Your task to perform on an android device: How much does a 2 bedroom apartment rent for in Los Angeles? Image 0: 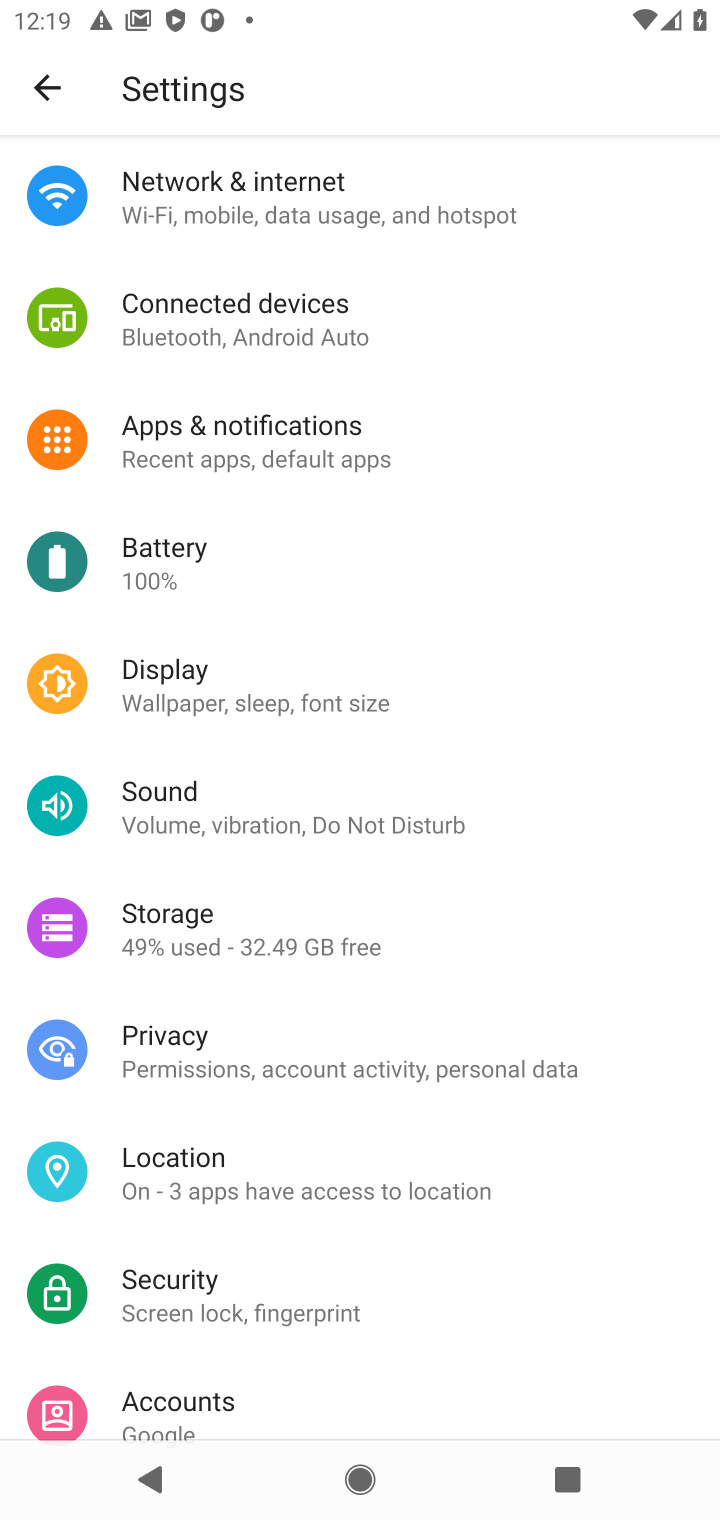
Step 0: press home button
Your task to perform on an android device: How much does a 2 bedroom apartment rent for in Los Angeles? Image 1: 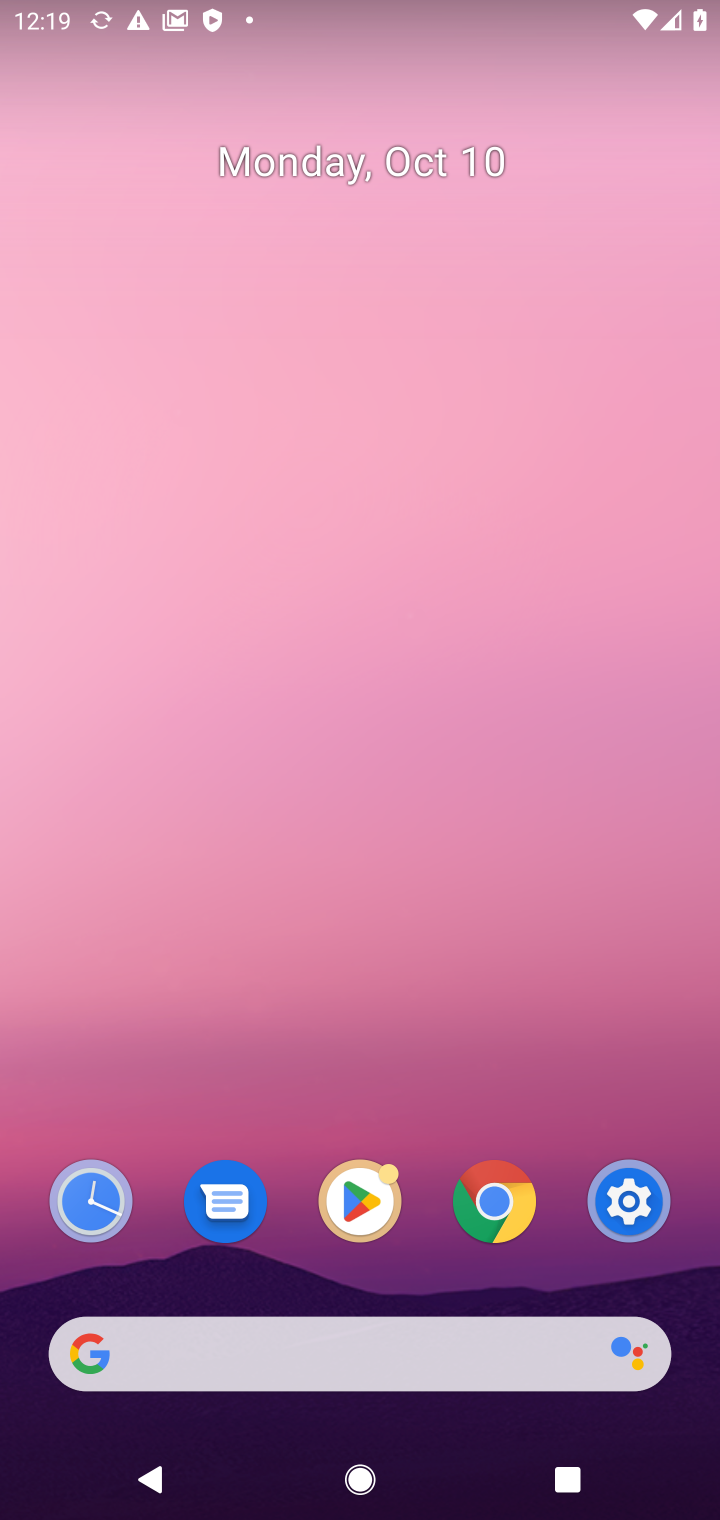
Step 1: click (501, 1205)
Your task to perform on an android device: How much does a 2 bedroom apartment rent for in Los Angeles? Image 2: 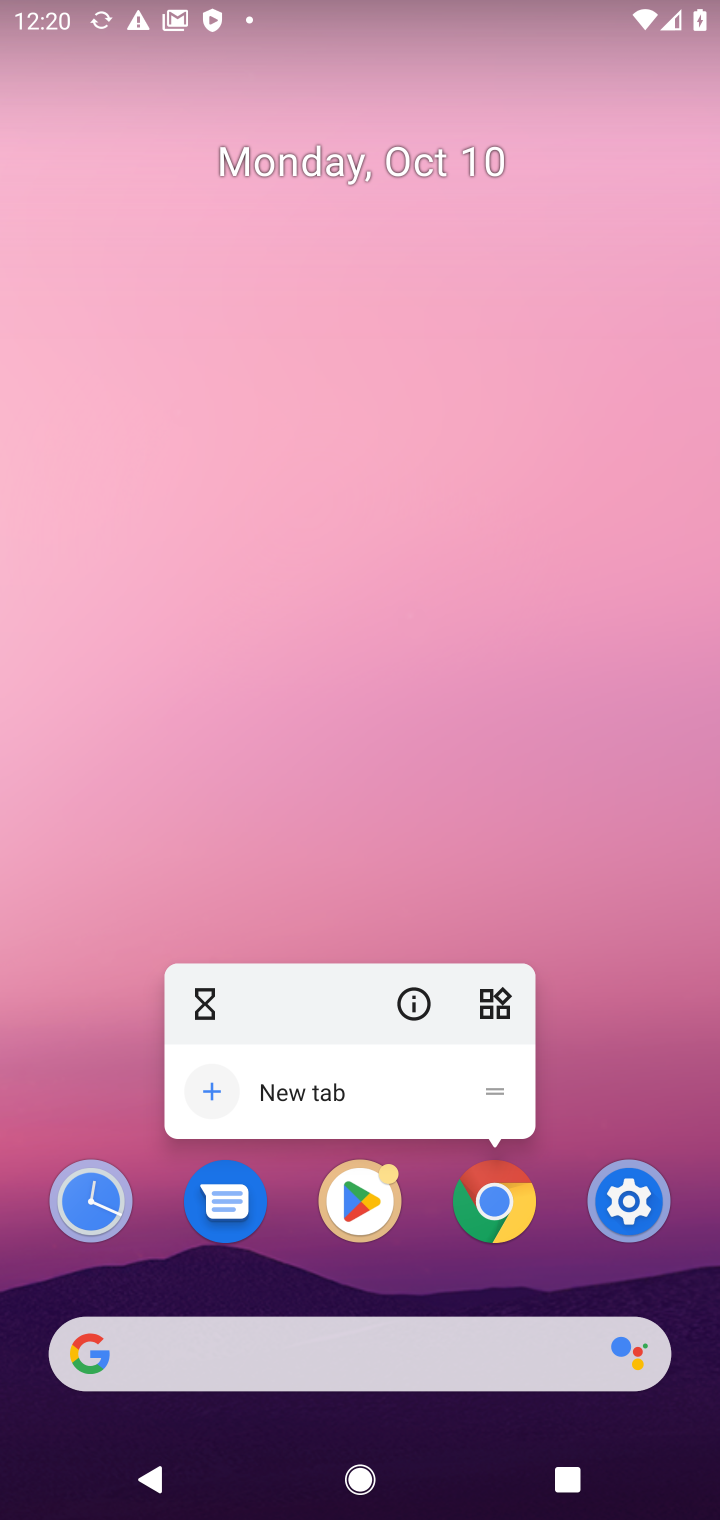
Step 2: click (575, 865)
Your task to perform on an android device: How much does a 2 bedroom apartment rent for in Los Angeles? Image 3: 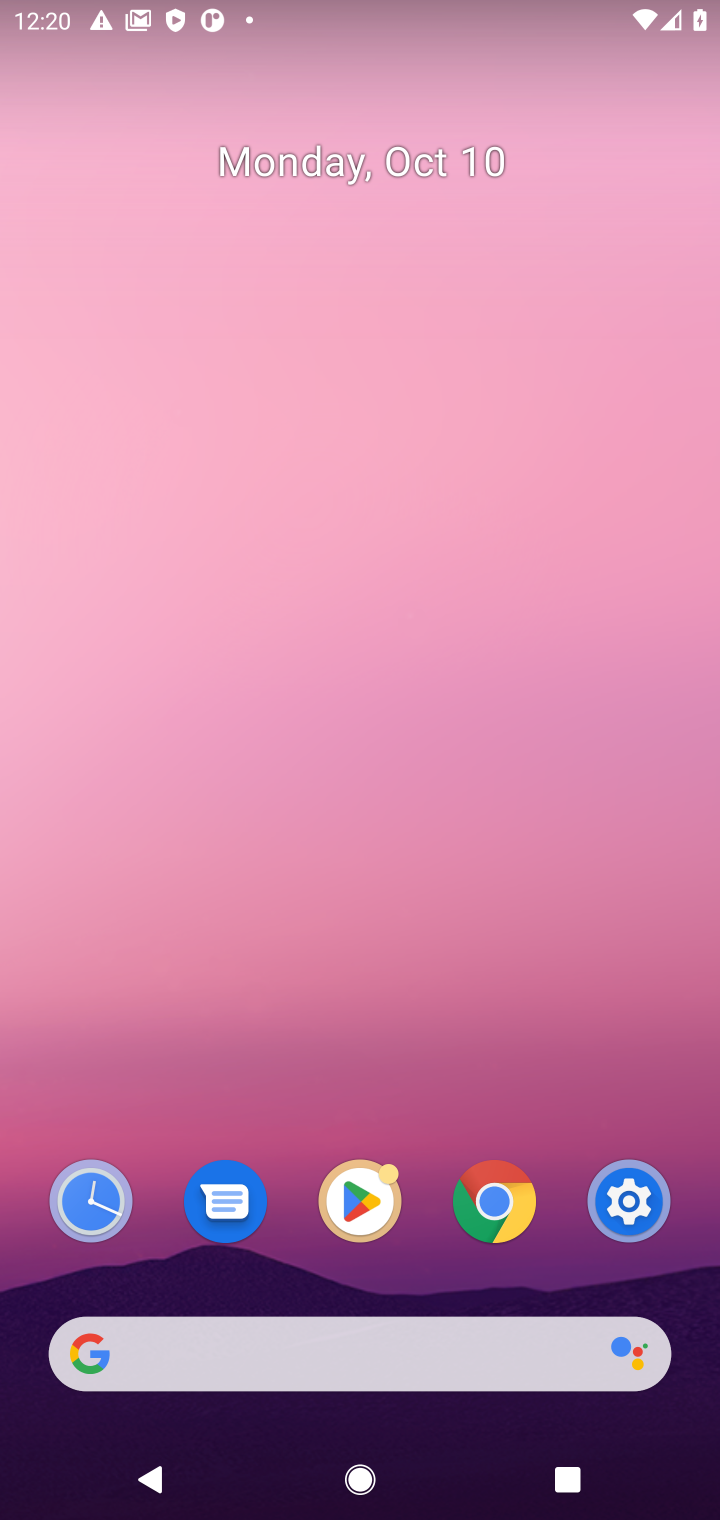
Step 3: click (480, 1192)
Your task to perform on an android device: How much does a 2 bedroom apartment rent for in Los Angeles? Image 4: 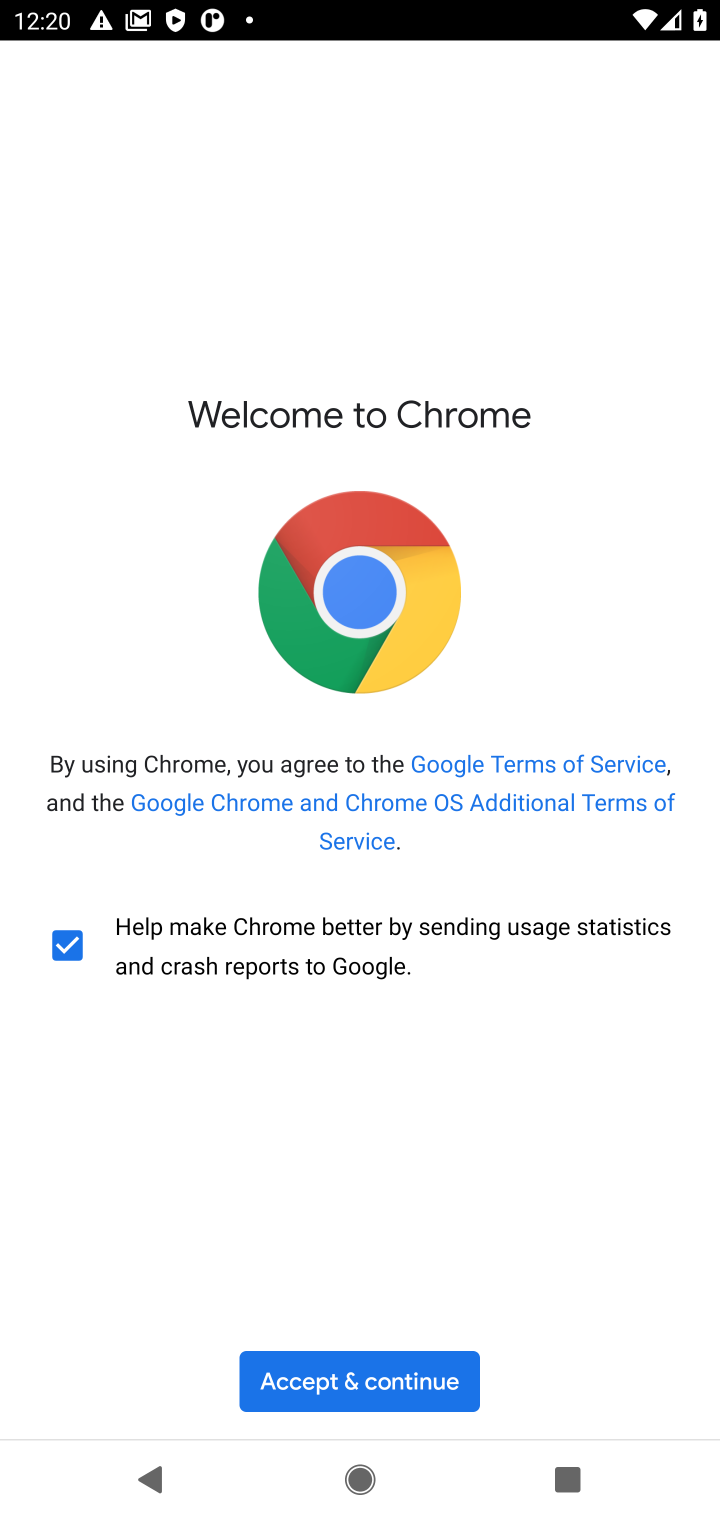
Step 4: click (323, 1383)
Your task to perform on an android device: How much does a 2 bedroom apartment rent for in Los Angeles? Image 5: 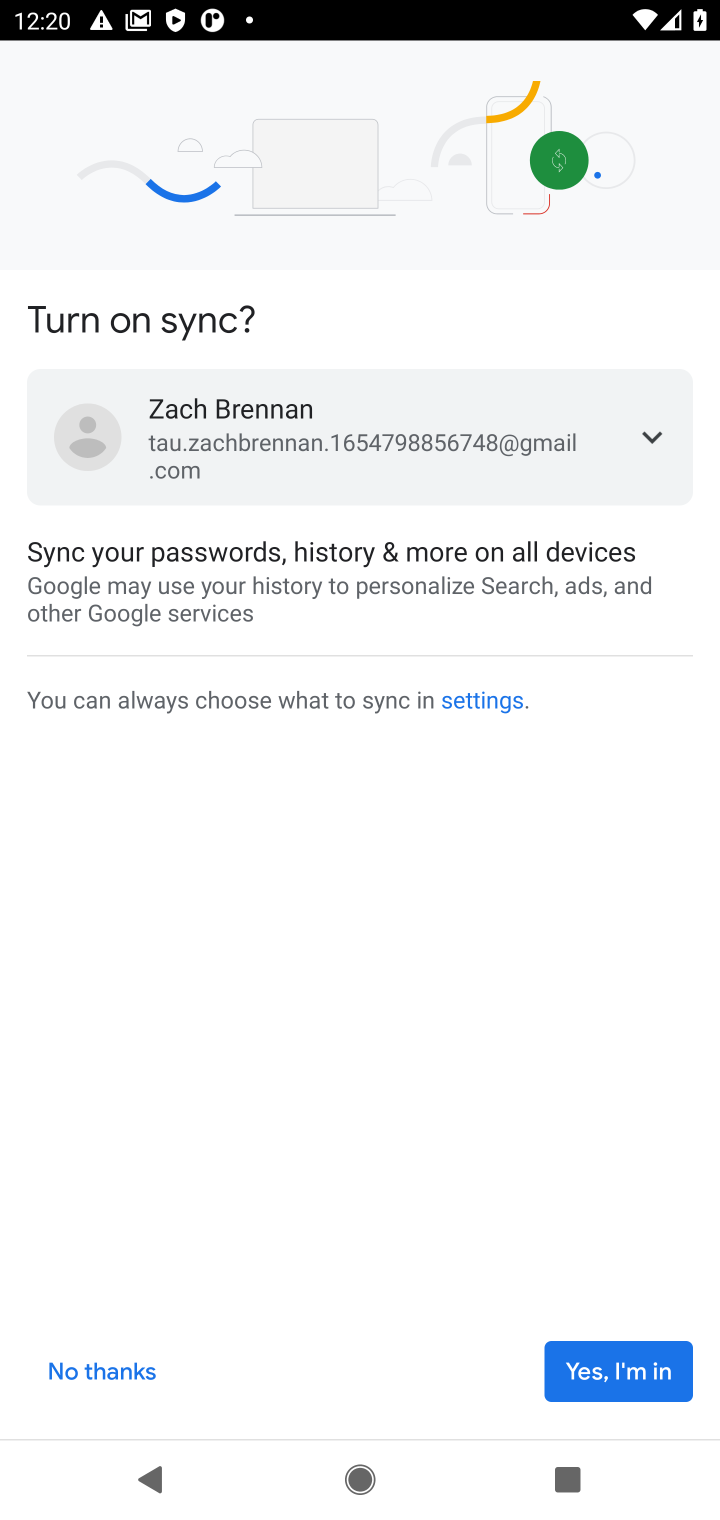
Step 5: click (143, 1373)
Your task to perform on an android device: How much does a 2 bedroom apartment rent for in Los Angeles? Image 6: 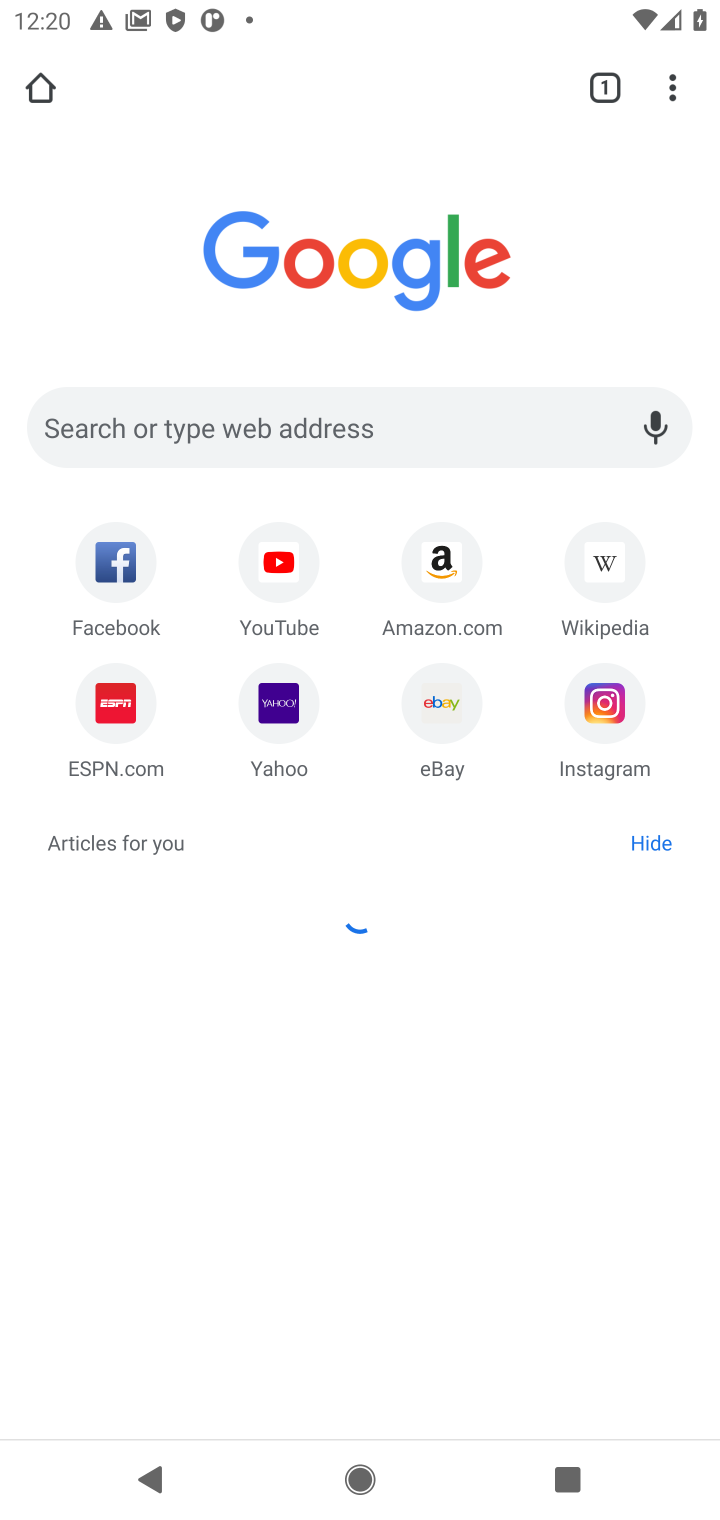
Step 6: click (175, 432)
Your task to perform on an android device: How much does a 2 bedroom apartment rent for in Los Angeles? Image 7: 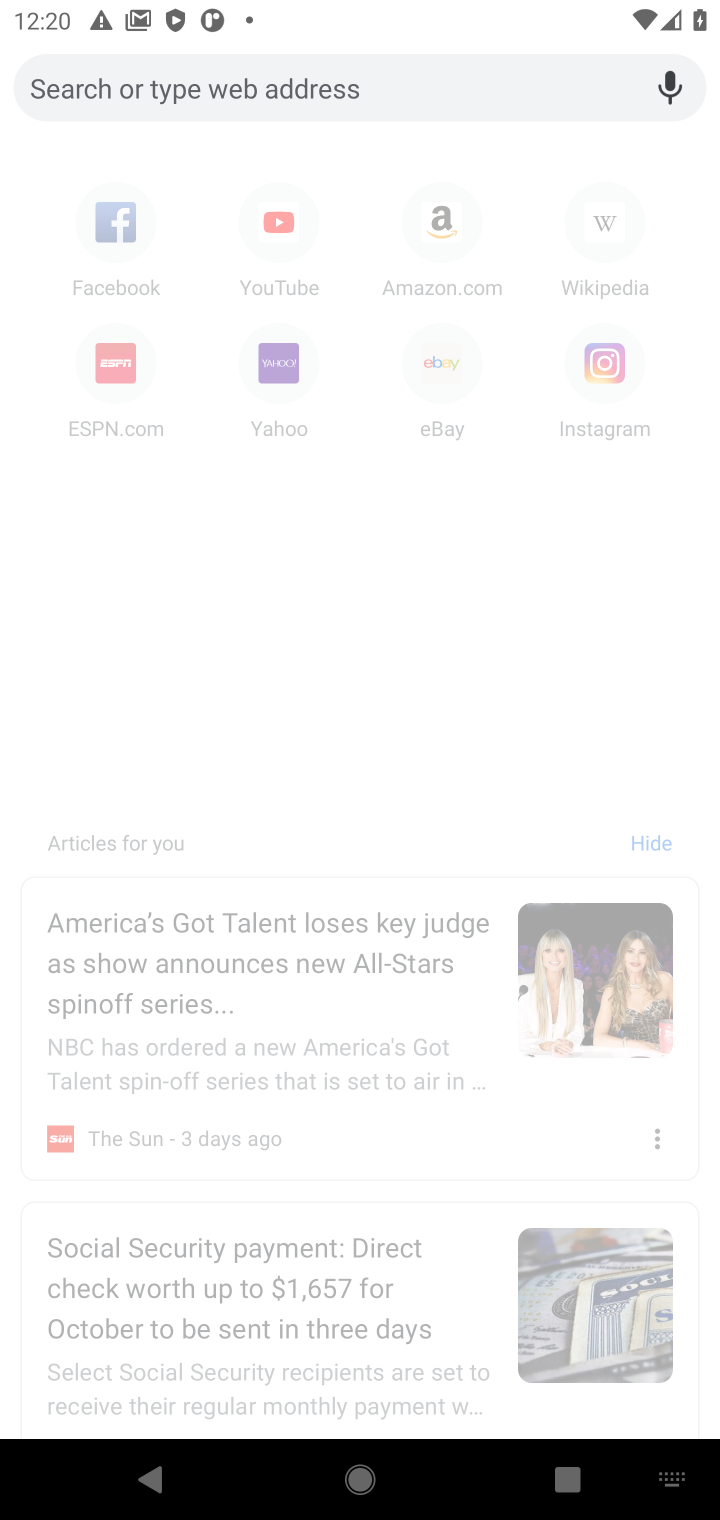
Step 7: type "How much does a 2 bedroom apartment rent for in Los Angeles?"
Your task to perform on an android device: How much does a 2 bedroom apartment rent for in Los Angeles? Image 8: 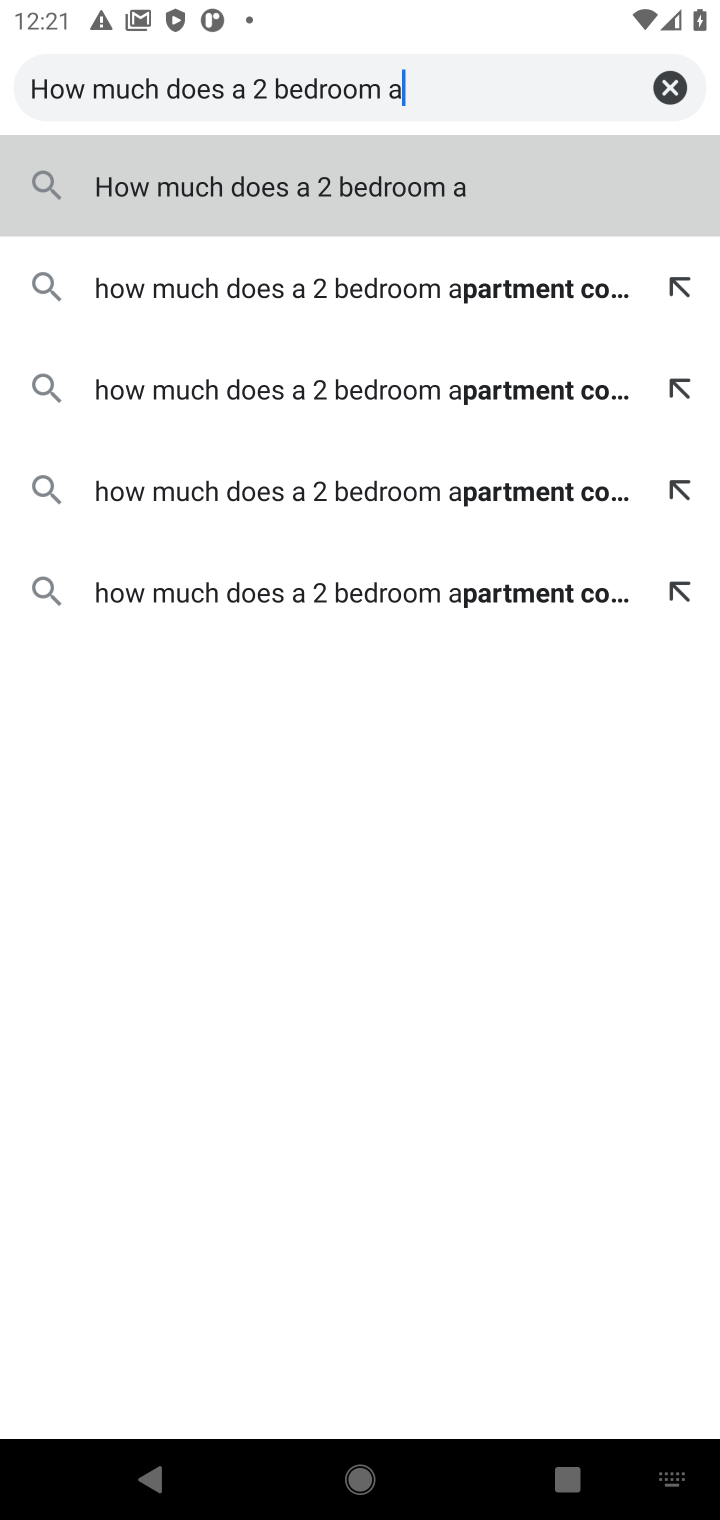
Step 8: type "partment  rent for in los angeles"
Your task to perform on an android device: How much does a 2 bedroom apartment rent for in Los Angeles? Image 9: 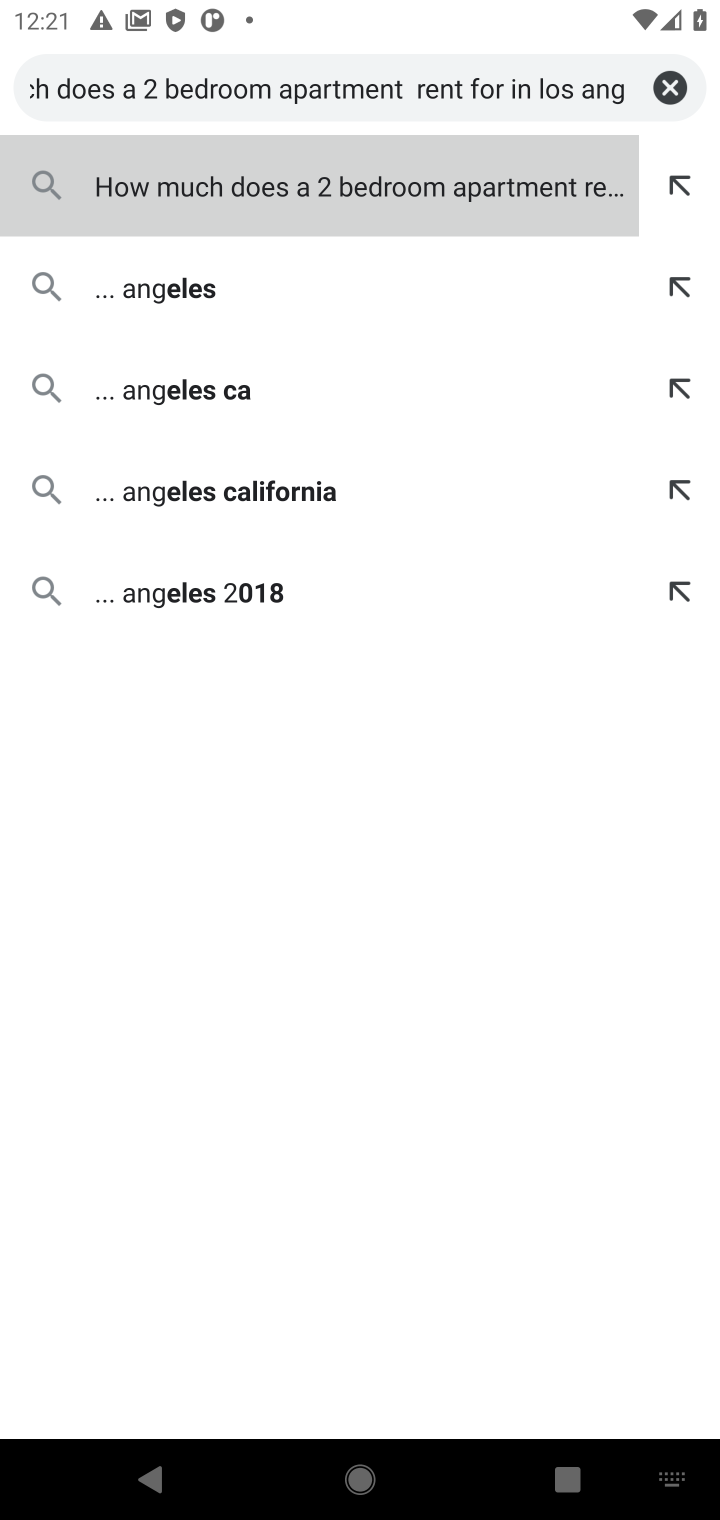
Step 9: click (170, 281)
Your task to perform on an android device: How much does a 2 bedroom apartment rent for in Los Angeles? Image 10: 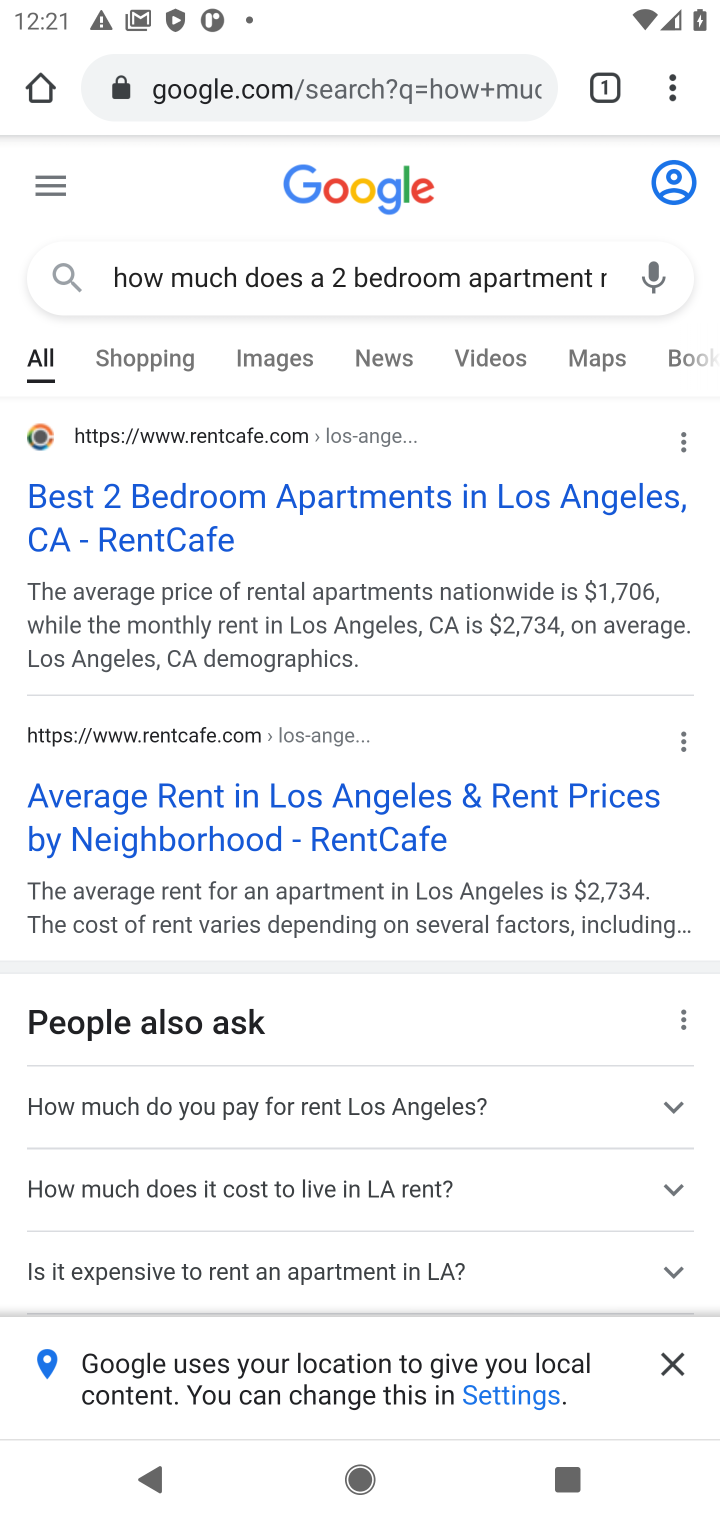
Step 10: click (158, 550)
Your task to perform on an android device: How much does a 2 bedroom apartment rent for in Los Angeles? Image 11: 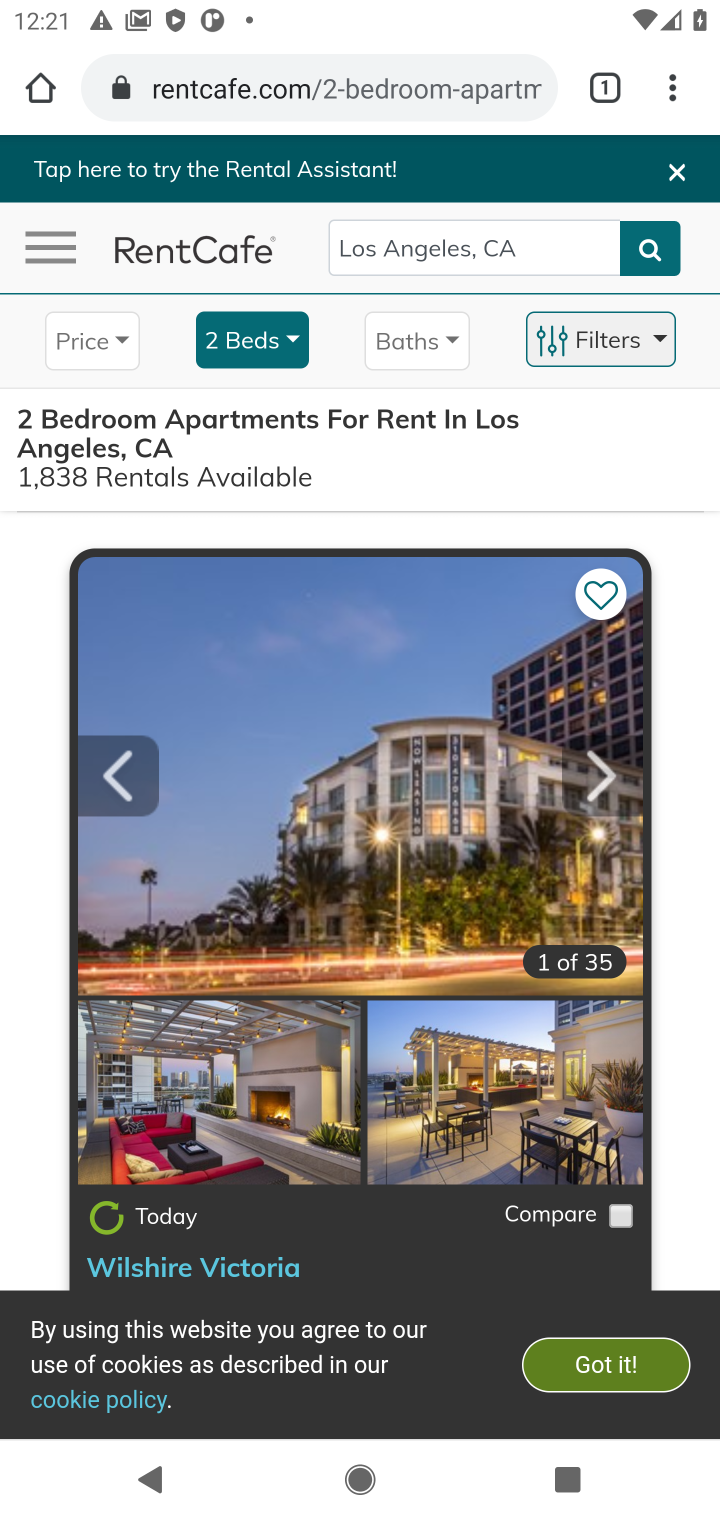
Step 11: task complete